Your task to perform on an android device: open chrome privacy settings Image 0: 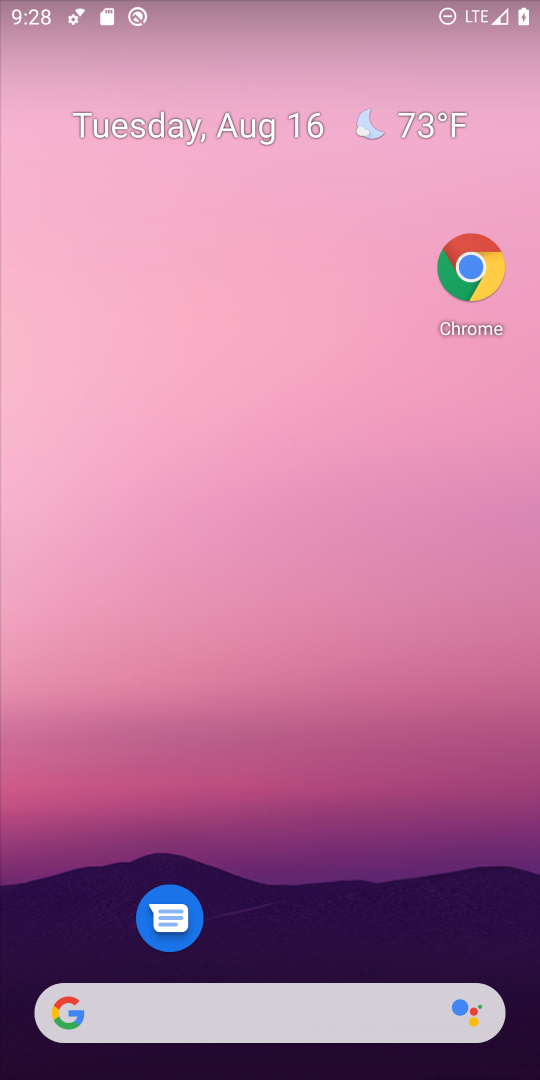
Step 0: drag from (300, 854) to (300, 236)
Your task to perform on an android device: open chrome privacy settings Image 1: 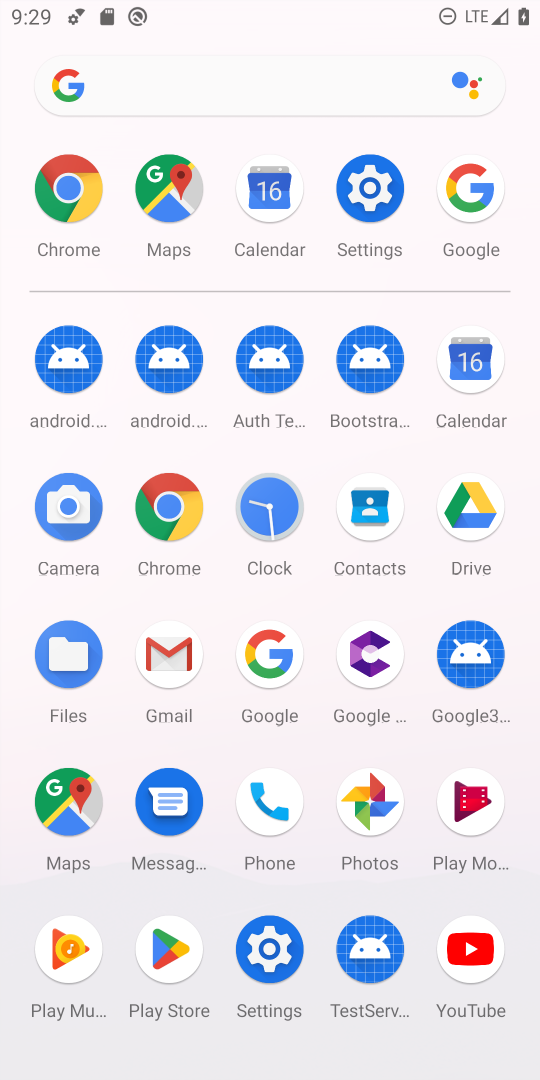
Step 1: click (67, 206)
Your task to perform on an android device: open chrome privacy settings Image 2: 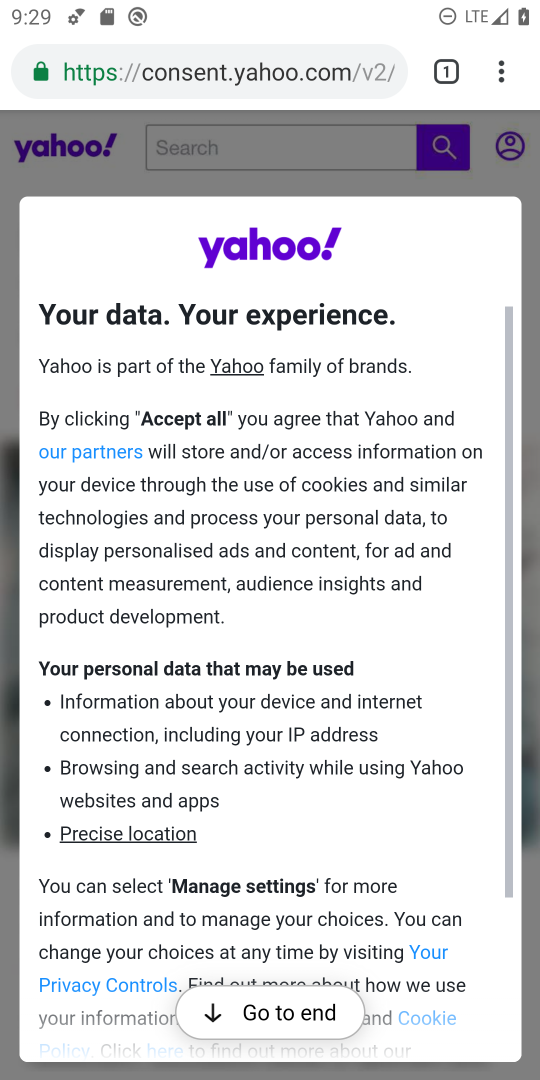
Step 2: click (504, 65)
Your task to perform on an android device: open chrome privacy settings Image 3: 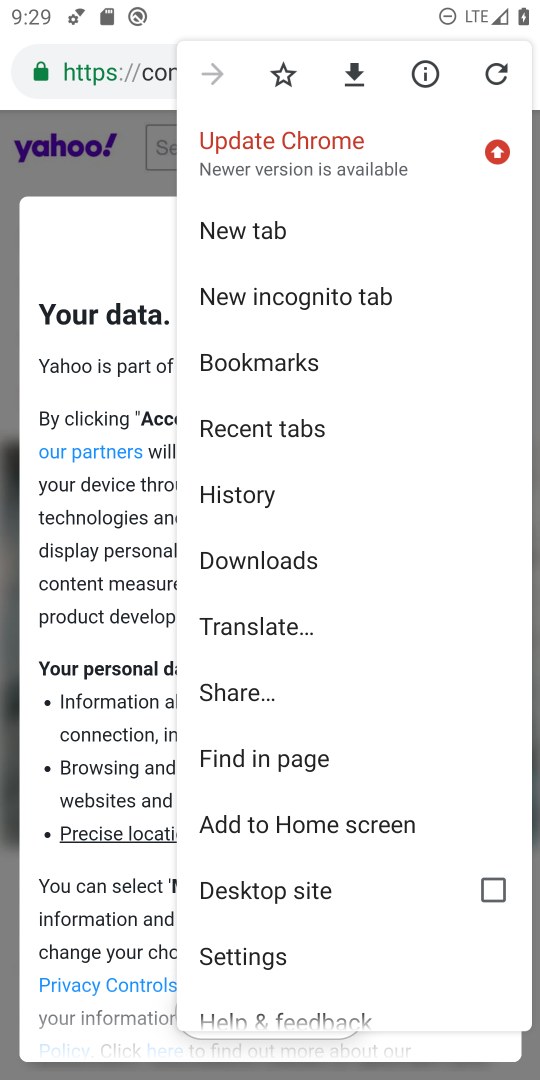
Step 3: drag from (399, 813) to (212, 23)
Your task to perform on an android device: open chrome privacy settings Image 4: 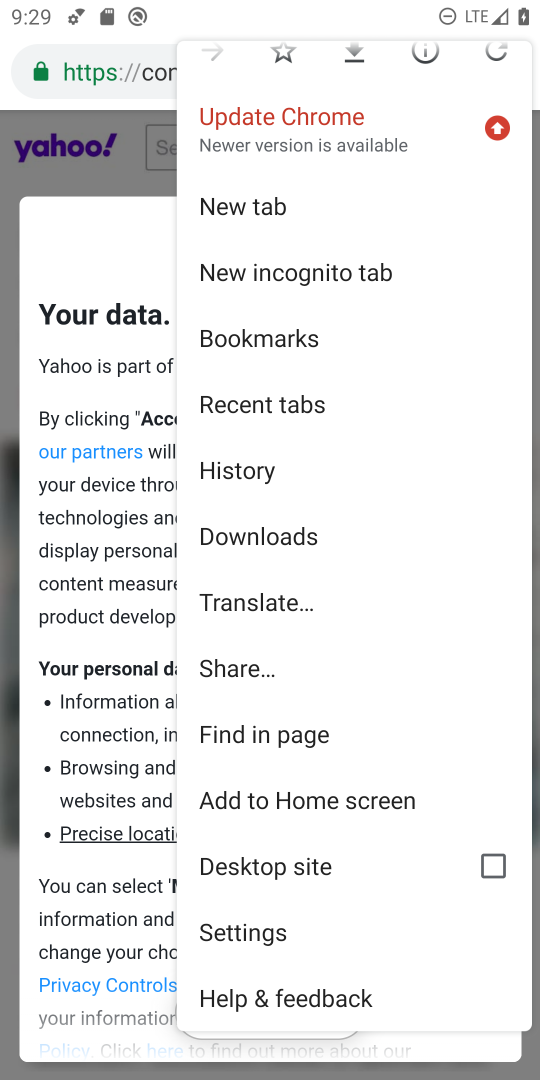
Step 4: click (290, 927)
Your task to perform on an android device: open chrome privacy settings Image 5: 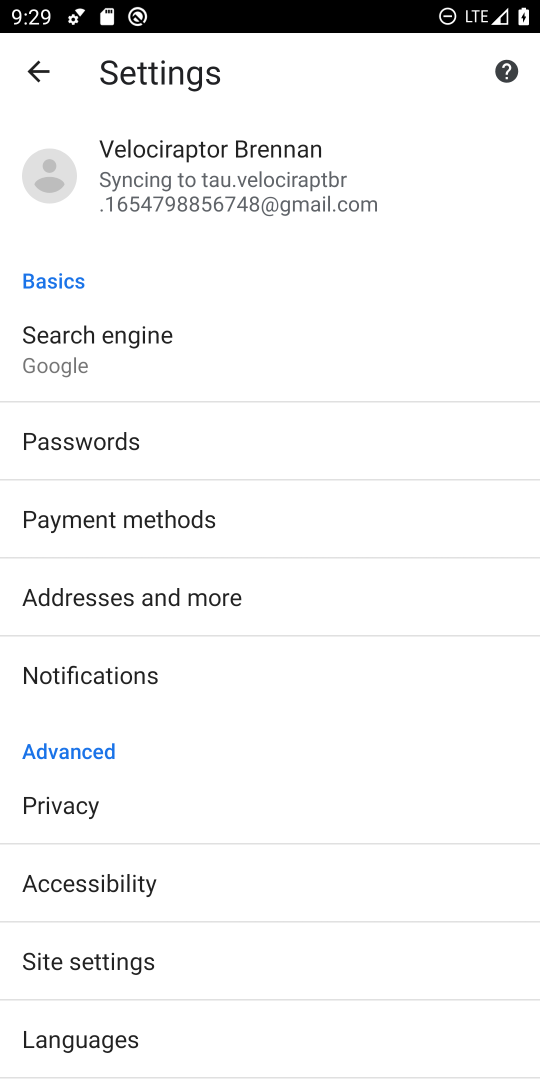
Step 5: click (90, 806)
Your task to perform on an android device: open chrome privacy settings Image 6: 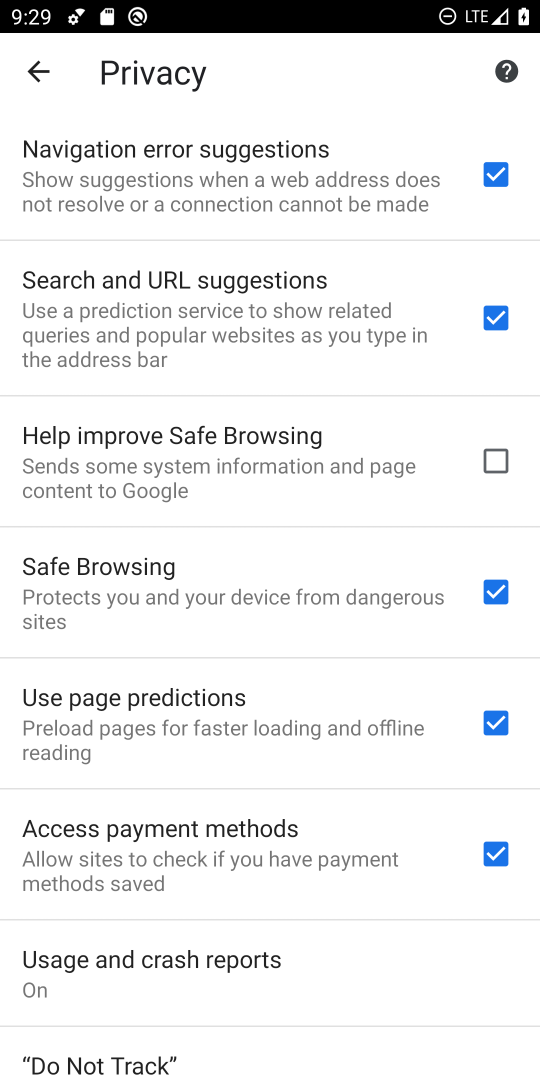
Step 6: task complete